Your task to perform on an android device: Open the Play Movies app and select the watchlist tab. Image 0: 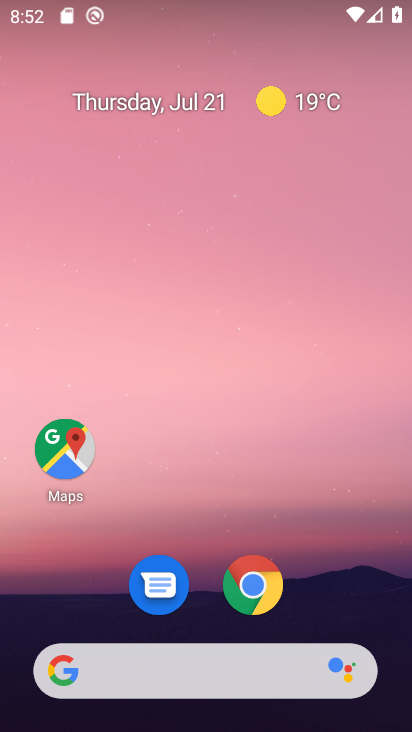
Step 0: drag from (221, 509) to (216, 85)
Your task to perform on an android device: Open the Play Movies app and select the watchlist tab. Image 1: 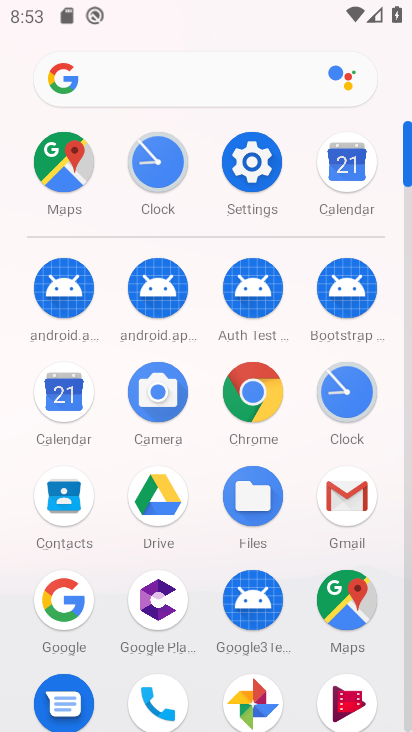
Step 1: drag from (302, 522) to (301, 358)
Your task to perform on an android device: Open the Play Movies app and select the watchlist tab. Image 2: 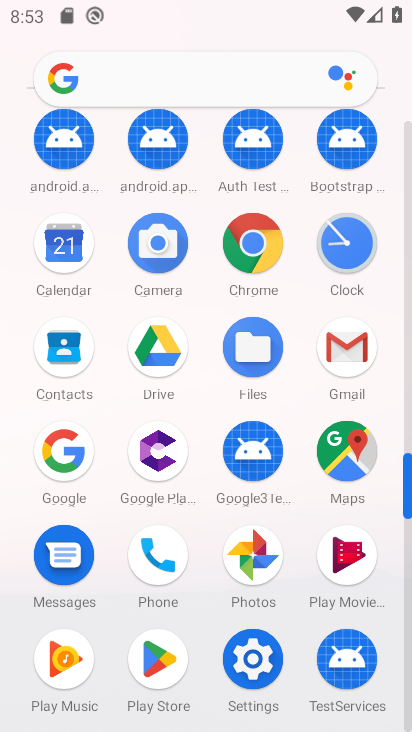
Step 2: click (348, 540)
Your task to perform on an android device: Open the Play Movies app and select the watchlist tab. Image 3: 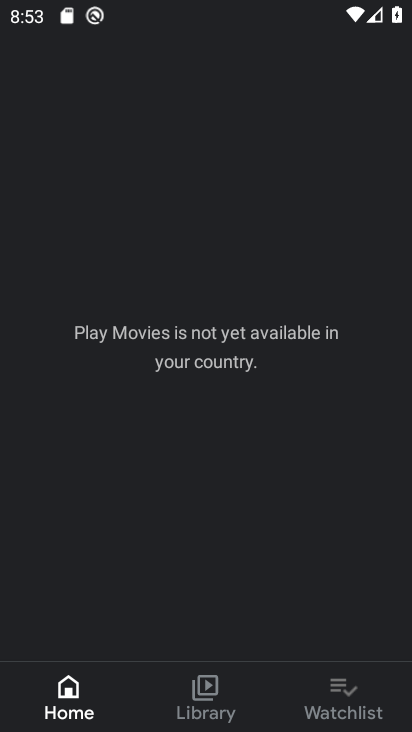
Step 3: click (336, 688)
Your task to perform on an android device: Open the Play Movies app and select the watchlist tab. Image 4: 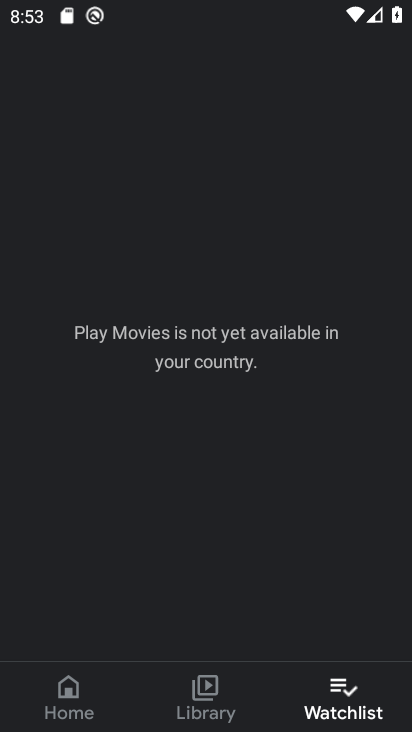
Step 4: task complete